Your task to perform on an android device: What's on my calendar today? Image 0: 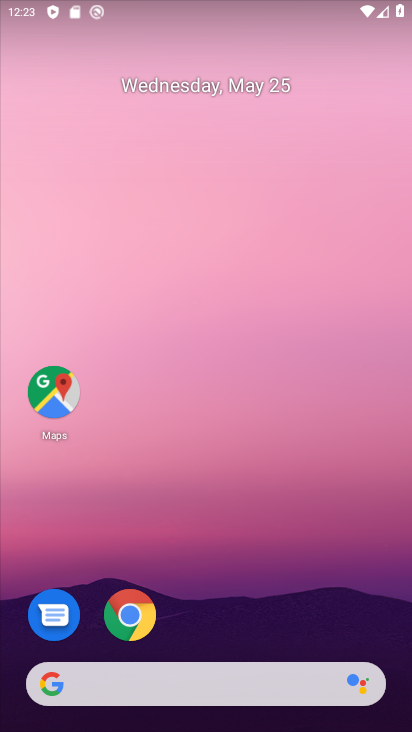
Step 0: click (159, 90)
Your task to perform on an android device: What's on my calendar today? Image 1: 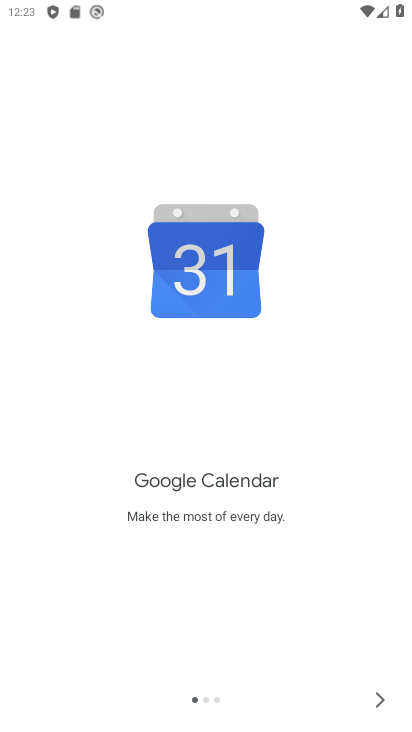
Step 1: click (383, 691)
Your task to perform on an android device: What's on my calendar today? Image 2: 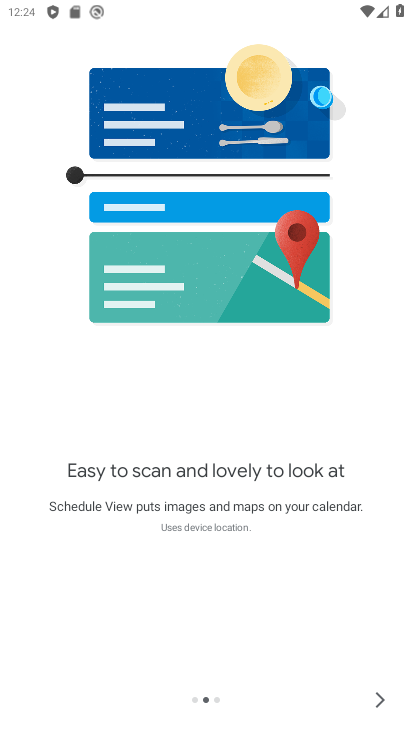
Step 2: click (383, 691)
Your task to perform on an android device: What's on my calendar today? Image 3: 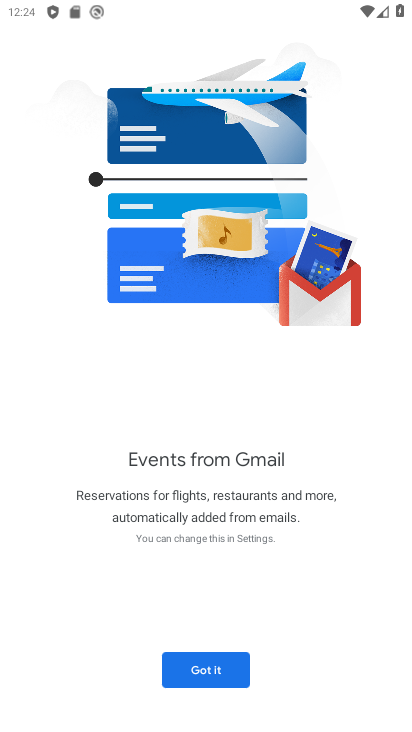
Step 3: click (196, 656)
Your task to perform on an android device: What's on my calendar today? Image 4: 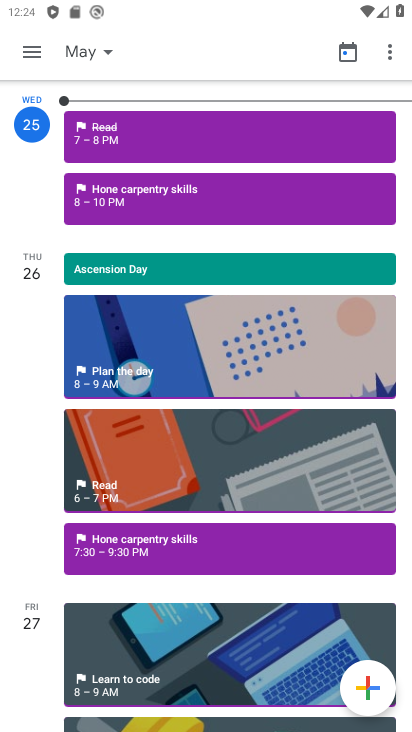
Step 4: task complete